Your task to perform on an android device: toggle airplane mode Image 0: 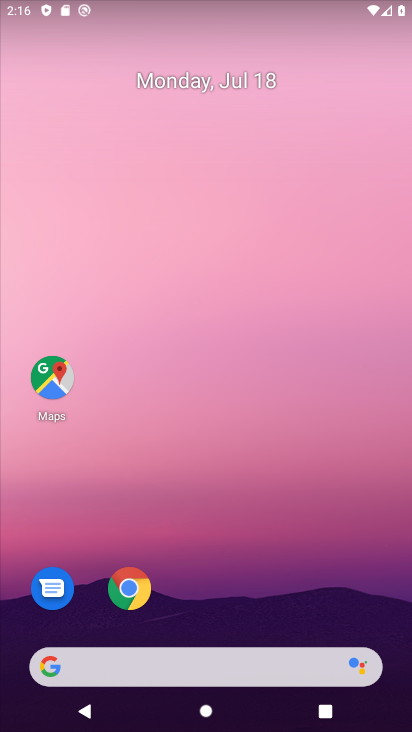
Step 0: drag from (360, 70) to (362, 531)
Your task to perform on an android device: toggle airplane mode Image 1: 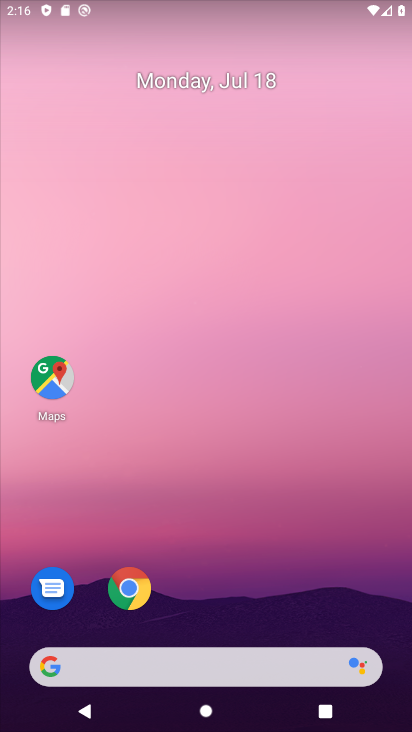
Step 1: drag from (393, 11) to (91, 528)
Your task to perform on an android device: toggle airplane mode Image 2: 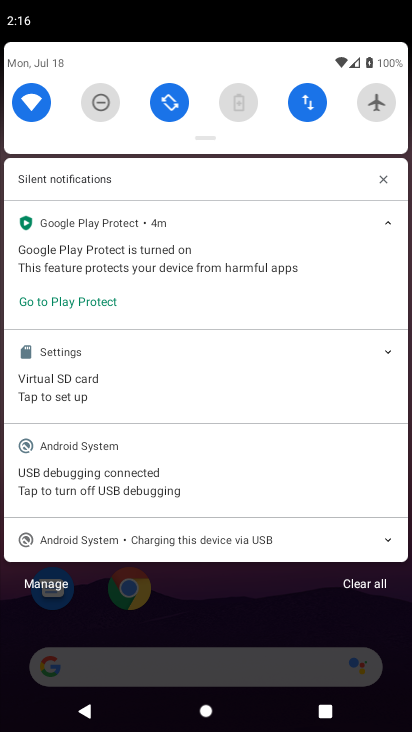
Step 2: click (370, 103)
Your task to perform on an android device: toggle airplane mode Image 3: 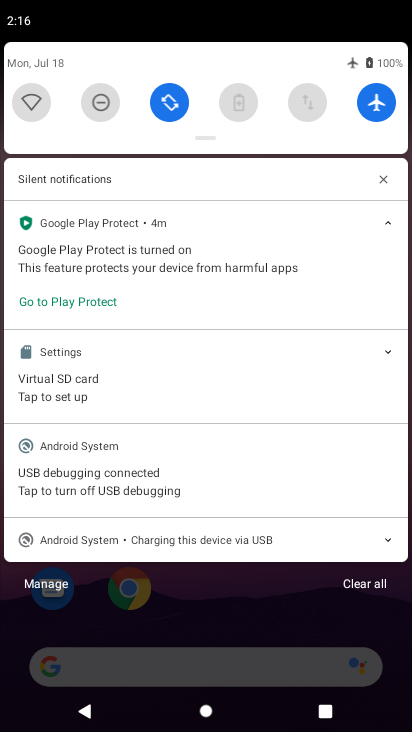
Step 3: task complete